Your task to perform on an android device: Open Google Chrome and open the bookmarks view Image 0: 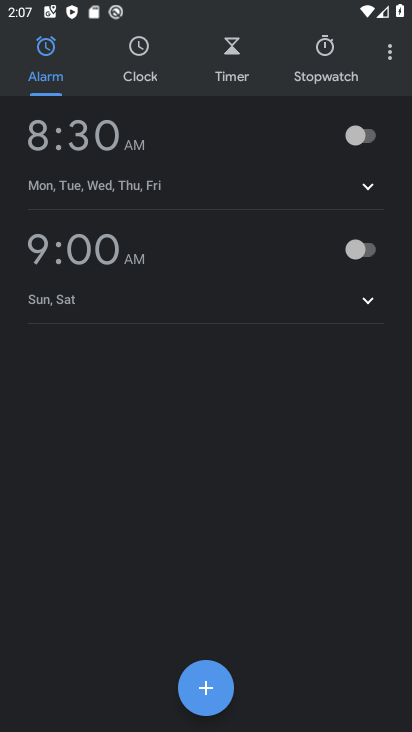
Step 0: press home button
Your task to perform on an android device: Open Google Chrome and open the bookmarks view Image 1: 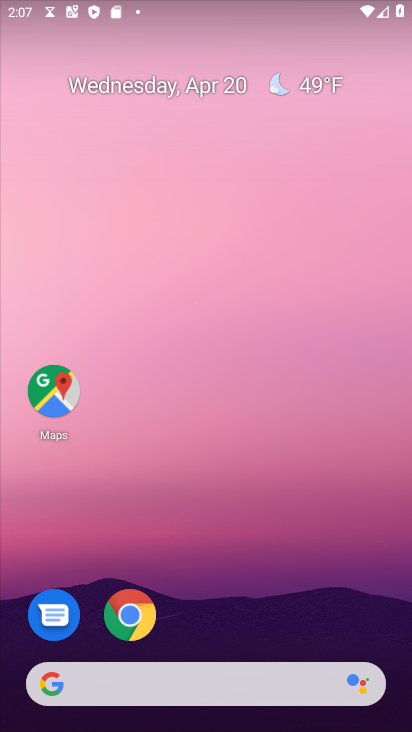
Step 1: click (142, 621)
Your task to perform on an android device: Open Google Chrome and open the bookmarks view Image 2: 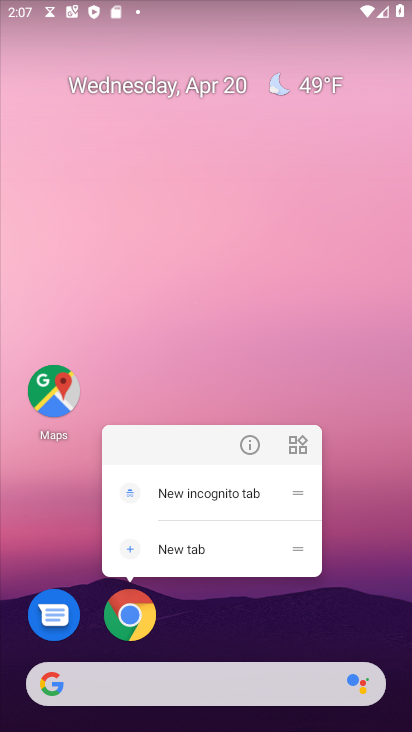
Step 2: click (208, 552)
Your task to perform on an android device: Open Google Chrome and open the bookmarks view Image 3: 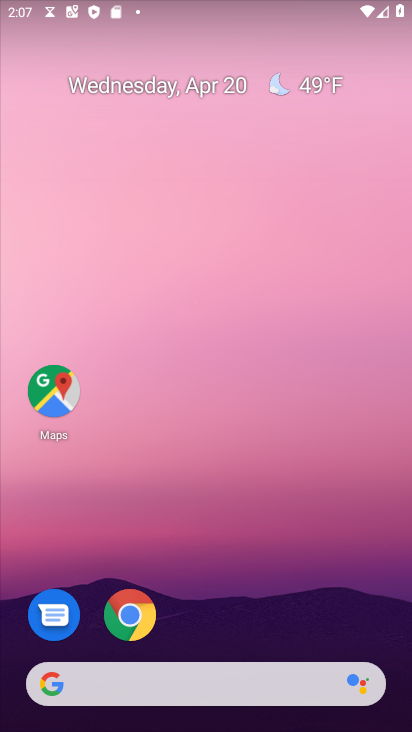
Step 3: click (132, 621)
Your task to perform on an android device: Open Google Chrome and open the bookmarks view Image 4: 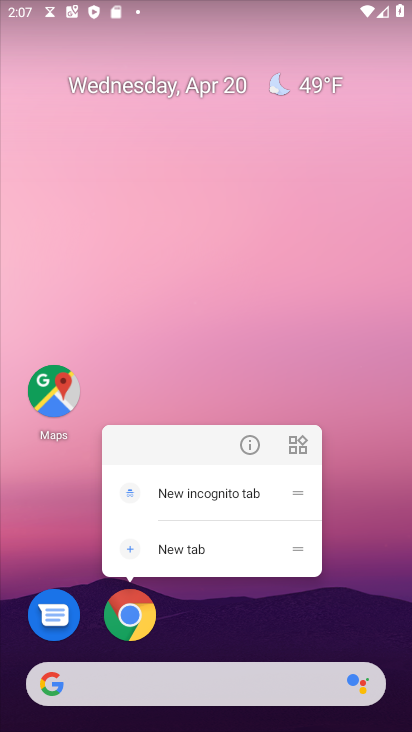
Step 4: click (260, 442)
Your task to perform on an android device: Open Google Chrome and open the bookmarks view Image 5: 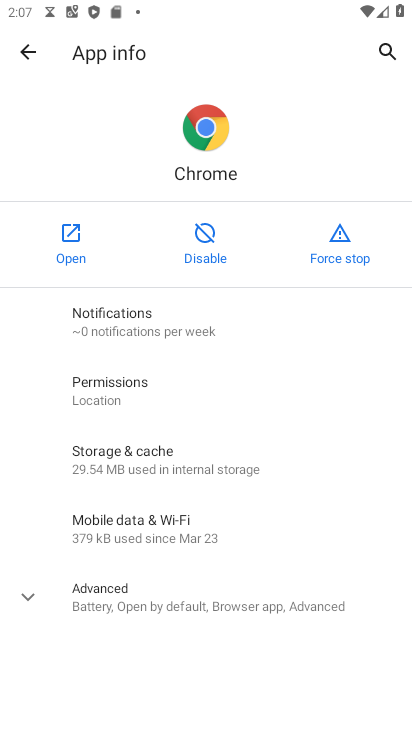
Step 5: click (86, 259)
Your task to perform on an android device: Open Google Chrome and open the bookmarks view Image 6: 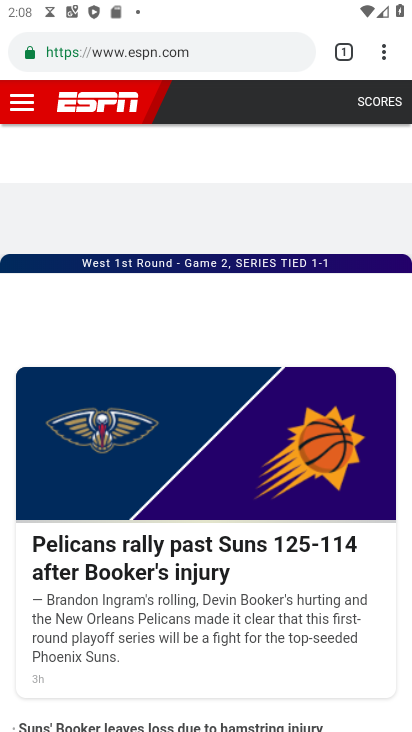
Step 6: click (385, 53)
Your task to perform on an android device: Open Google Chrome and open the bookmarks view Image 7: 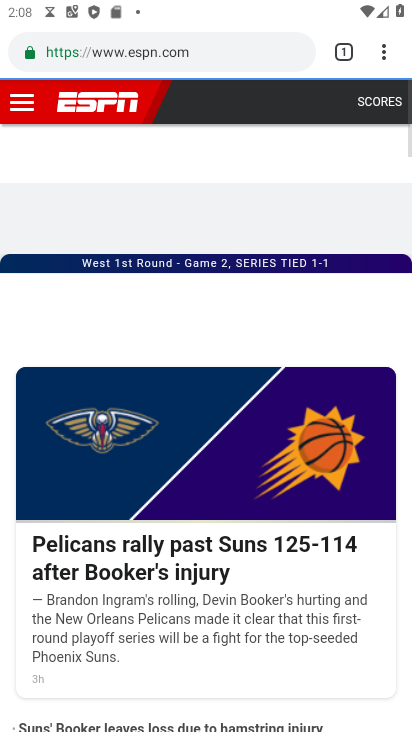
Step 7: click (385, 53)
Your task to perform on an android device: Open Google Chrome and open the bookmarks view Image 8: 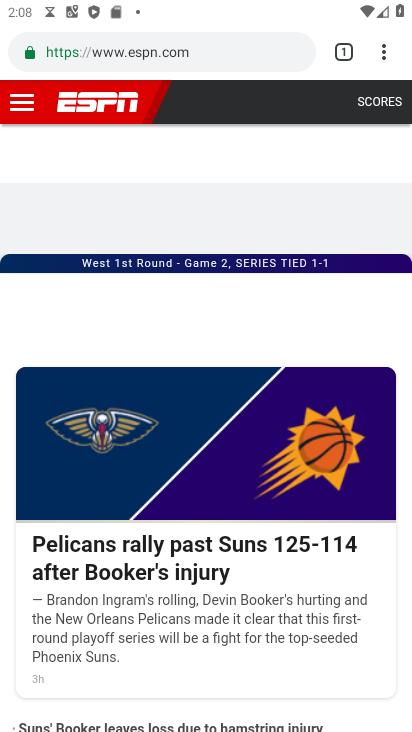
Step 8: click (386, 56)
Your task to perform on an android device: Open Google Chrome and open the bookmarks view Image 9: 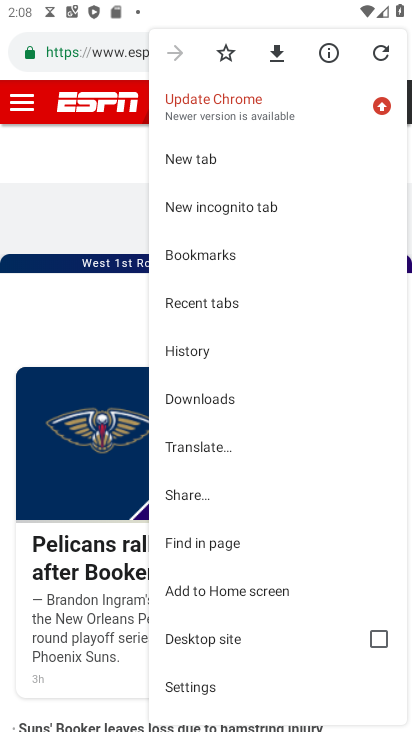
Step 9: click (231, 255)
Your task to perform on an android device: Open Google Chrome and open the bookmarks view Image 10: 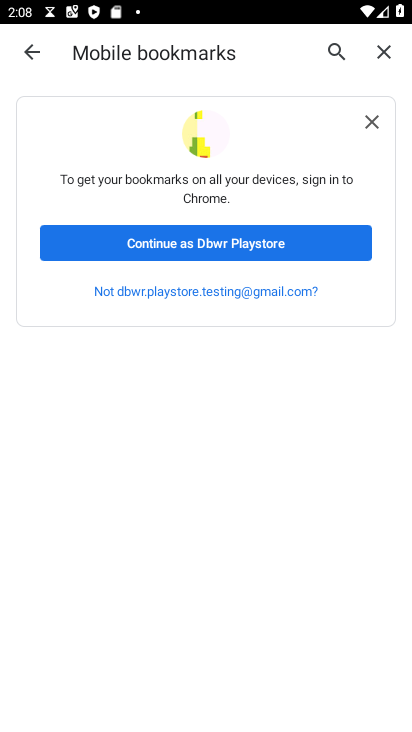
Step 10: click (232, 254)
Your task to perform on an android device: Open Google Chrome and open the bookmarks view Image 11: 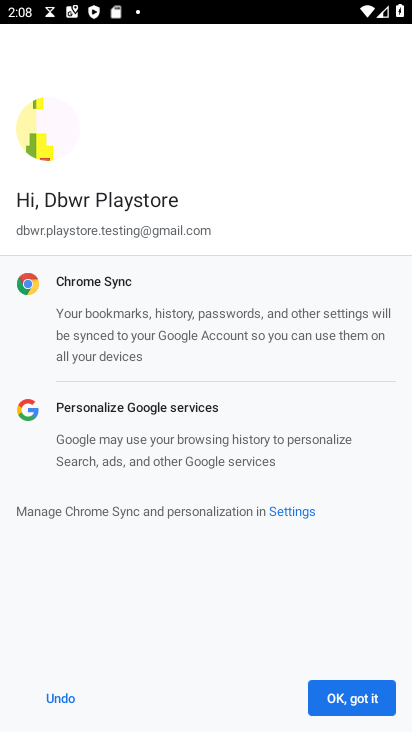
Step 11: click (351, 706)
Your task to perform on an android device: Open Google Chrome and open the bookmarks view Image 12: 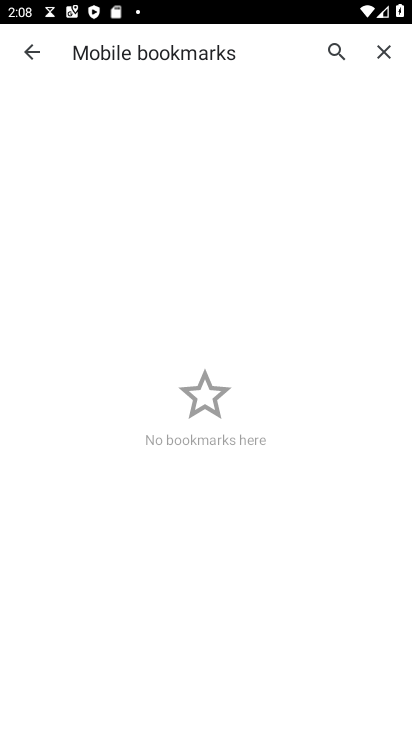
Step 12: task complete